Your task to perform on an android device: toggle sleep mode Image 0: 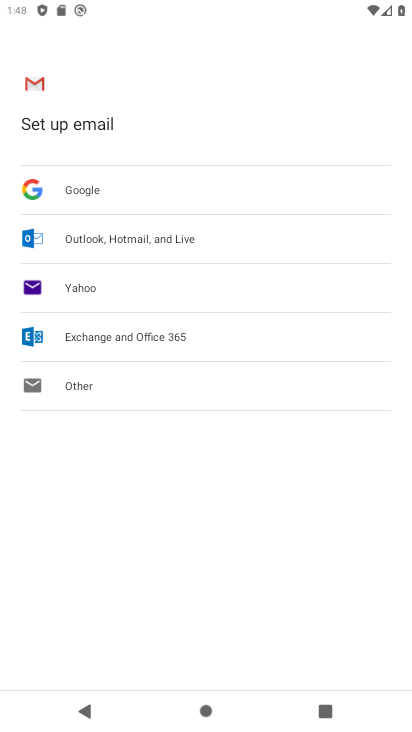
Step 0: press home button
Your task to perform on an android device: toggle sleep mode Image 1: 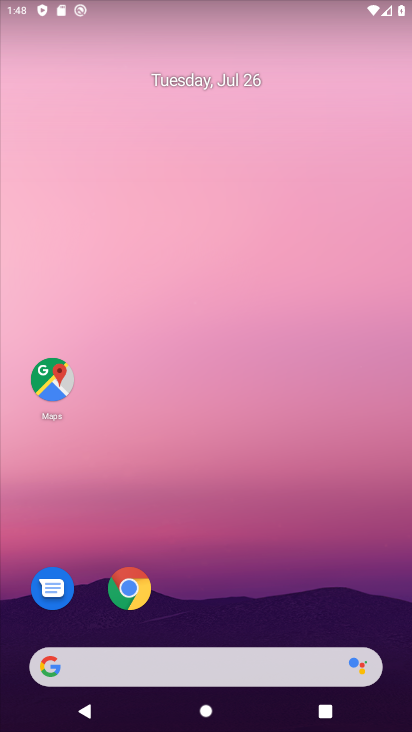
Step 1: drag from (279, 605) to (211, 207)
Your task to perform on an android device: toggle sleep mode Image 2: 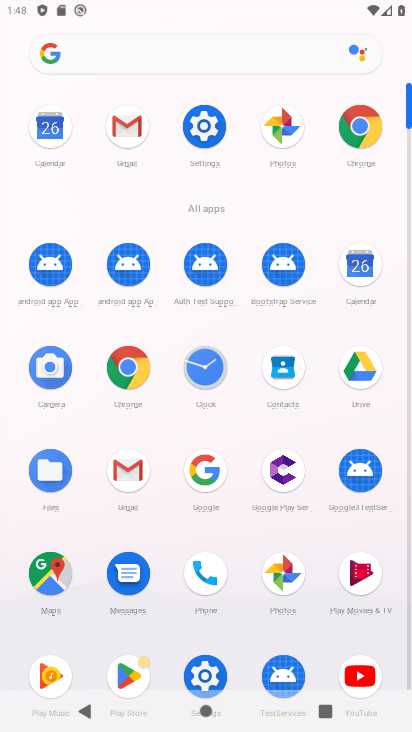
Step 2: click (212, 130)
Your task to perform on an android device: toggle sleep mode Image 3: 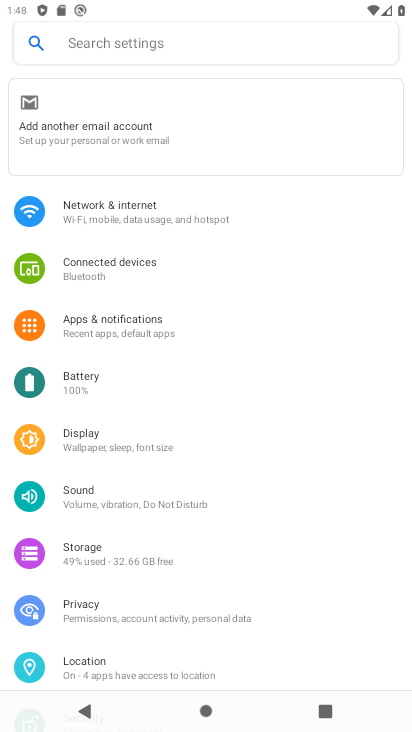
Step 3: click (145, 426)
Your task to perform on an android device: toggle sleep mode Image 4: 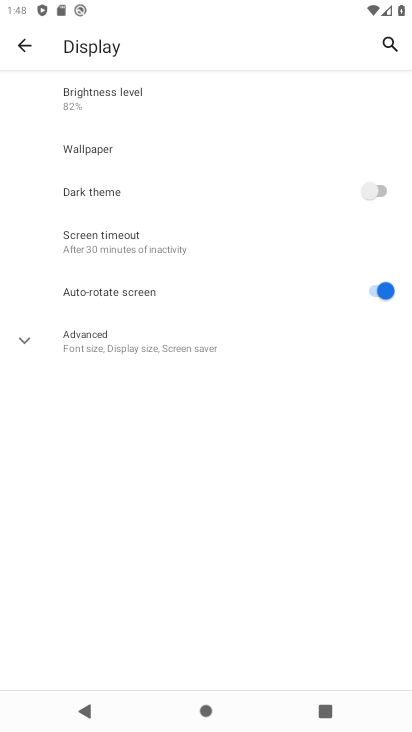
Step 4: click (295, 348)
Your task to perform on an android device: toggle sleep mode Image 5: 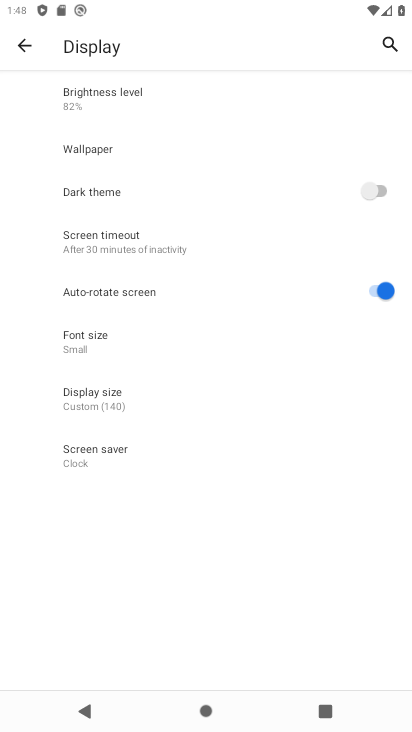
Step 5: task complete